Your task to perform on an android device: set the timer Image 0: 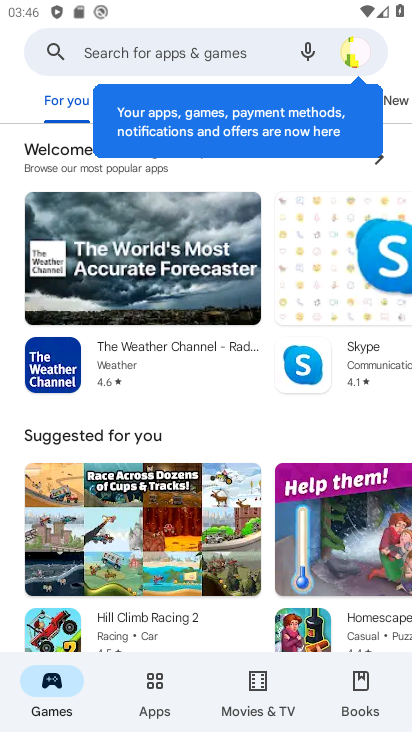
Step 0: press back button
Your task to perform on an android device: set the timer Image 1: 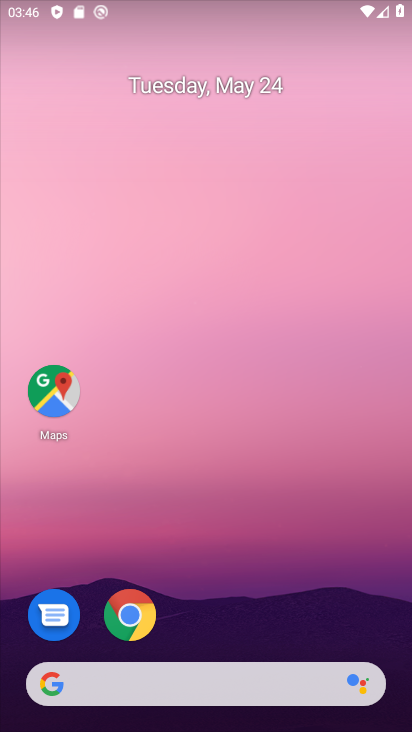
Step 1: drag from (217, 598) to (257, 43)
Your task to perform on an android device: set the timer Image 2: 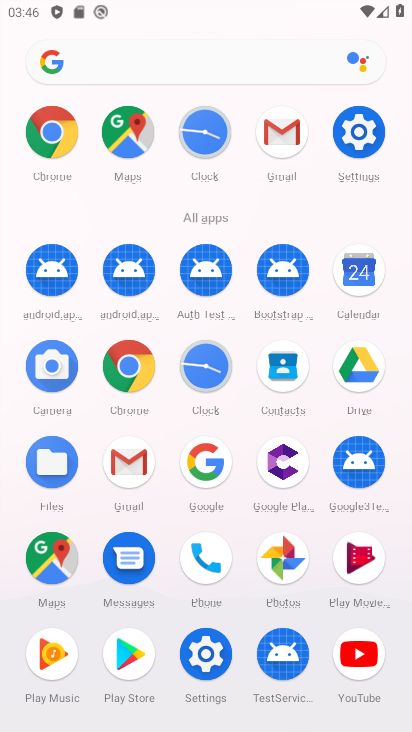
Step 2: drag from (11, 481) to (26, 129)
Your task to perform on an android device: set the timer Image 3: 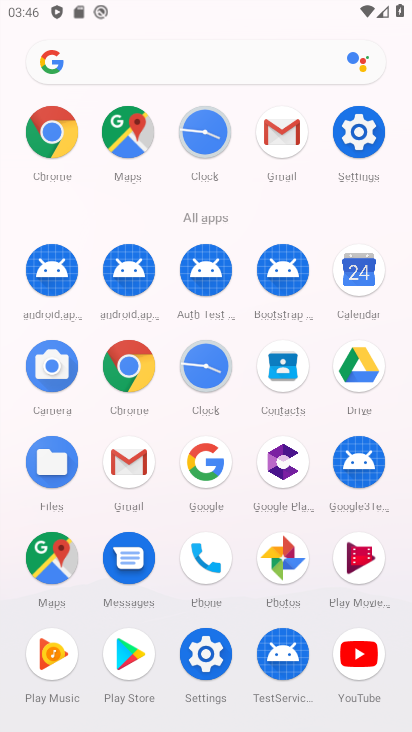
Step 3: click (202, 360)
Your task to perform on an android device: set the timer Image 4: 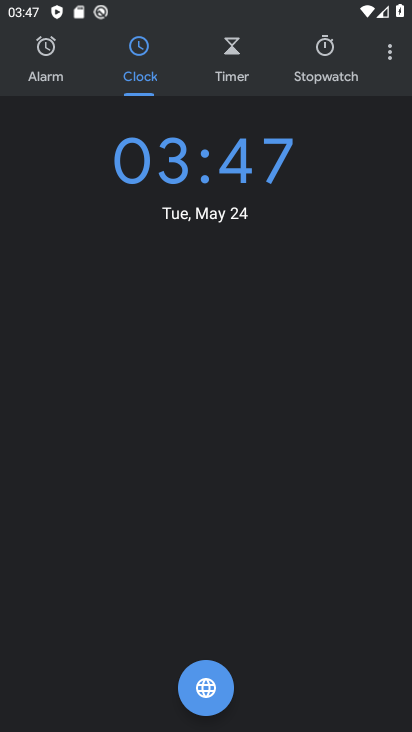
Step 4: click (38, 50)
Your task to perform on an android device: set the timer Image 5: 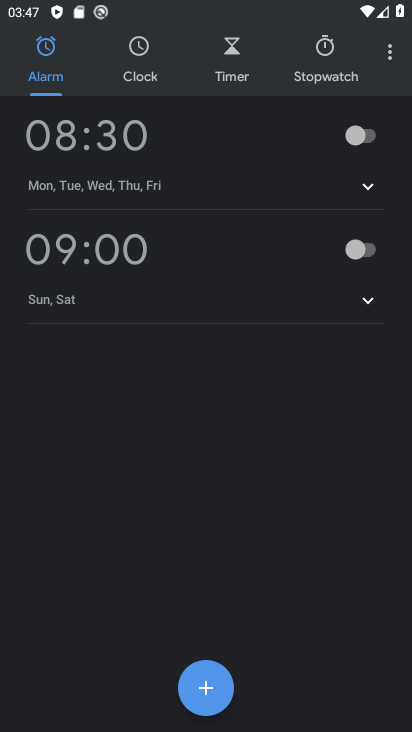
Step 5: click (224, 49)
Your task to perform on an android device: set the timer Image 6: 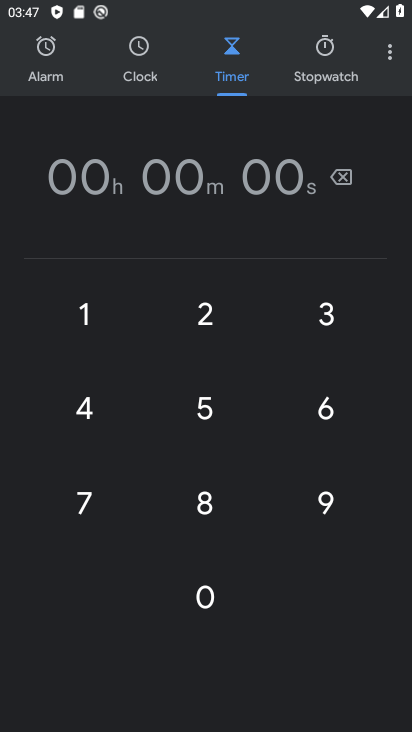
Step 6: click (191, 304)
Your task to perform on an android device: set the timer Image 7: 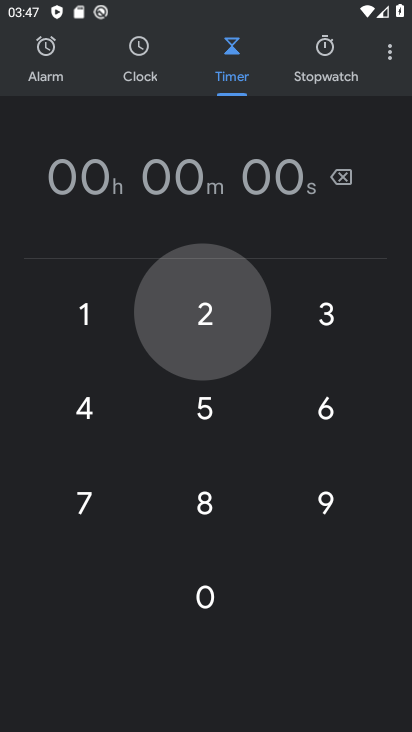
Step 7: click (191, 421)
Your task to perform on an android device: set the timer Image 8: 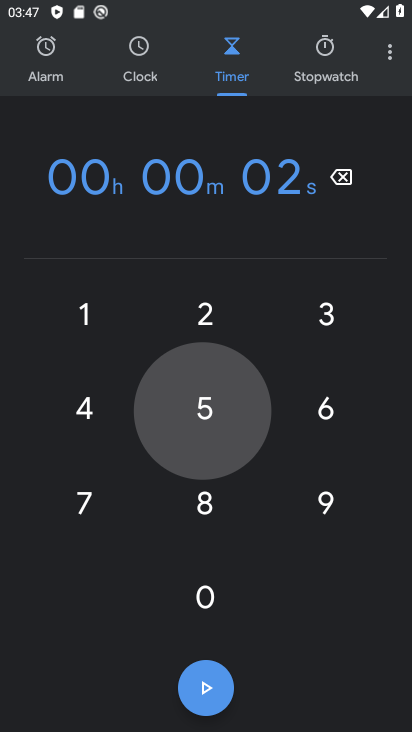
Step 8: click (195, 473)
Your task to perform on an android device: set the timer Image 9: 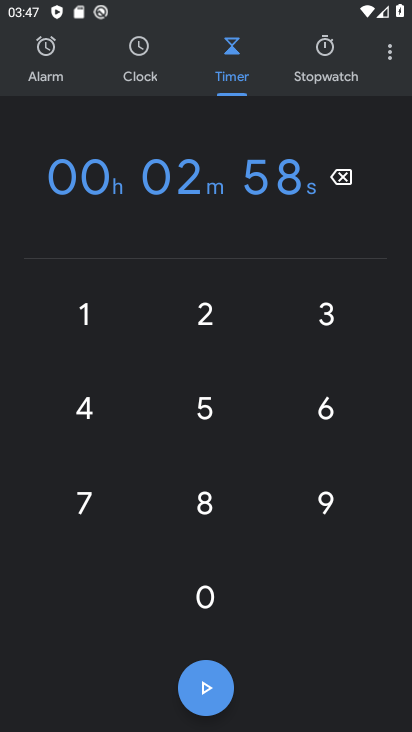
Step 9: click (202, 591)
Your task to perform on an android device: set the timer Image 10: 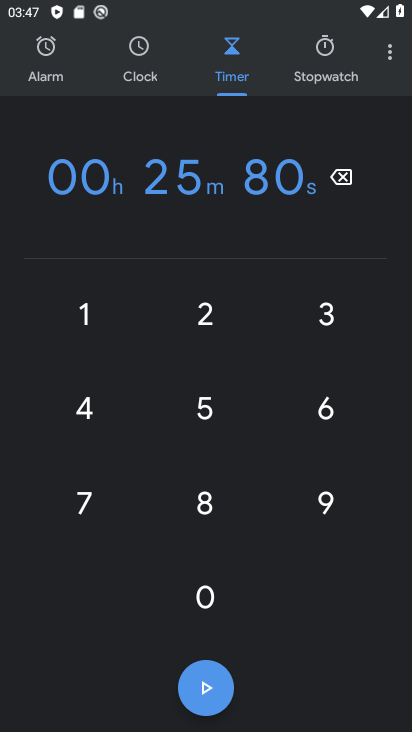
Step 10: click (195, 680)
Your task to perform on an android device: set the timer Image 11: 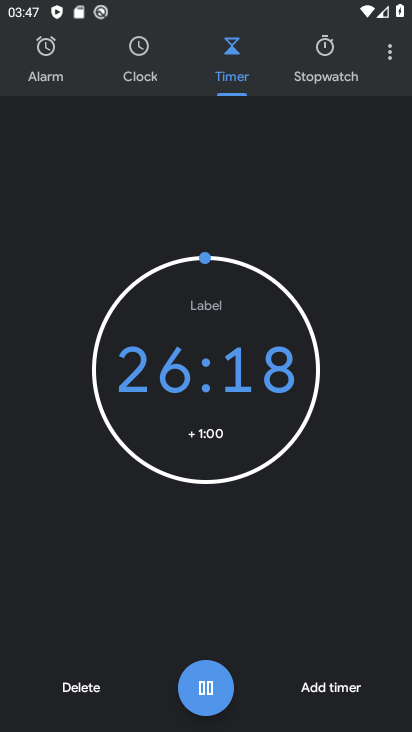
Step 11: task complete